Your task to perform on an android device: turn off wifi Image 0: 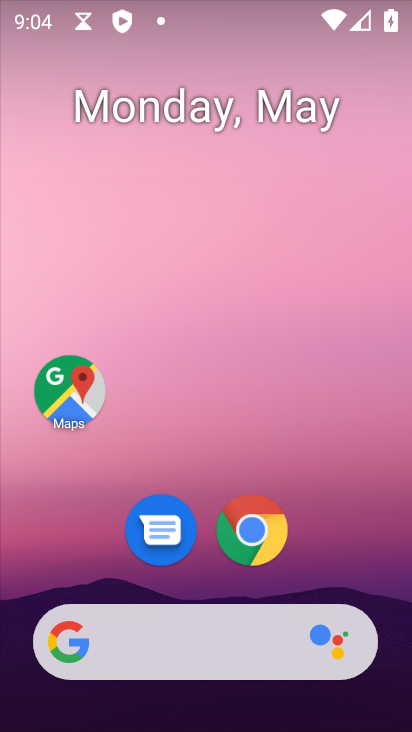
Step 0: drag from (341, 512) to (259, 5)
Your task to perform on an android device: turn off wifi Image 1: 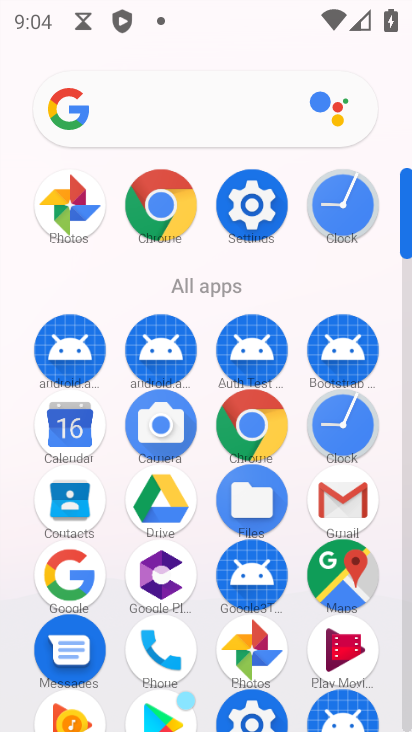
Step 1: click (253, 199)
Your task to perform on an android device: turn off wifi Image 2: 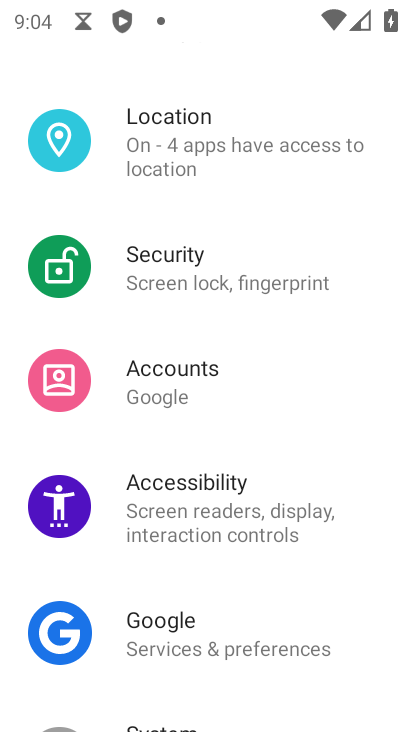
Step 2: drag from (312, 104) to (249, 654)
Your task to perform on an android device: turn off wifi Image 3: 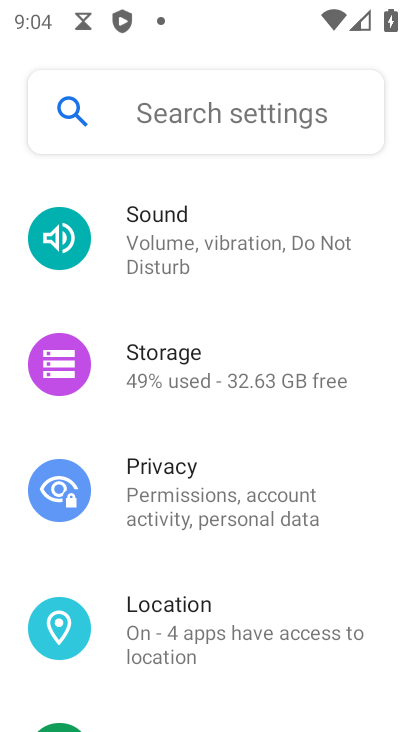
Step 3: drag from (232, 237) to (235, 519)
Your task to perform on an android device: turn off wifi Image 4: 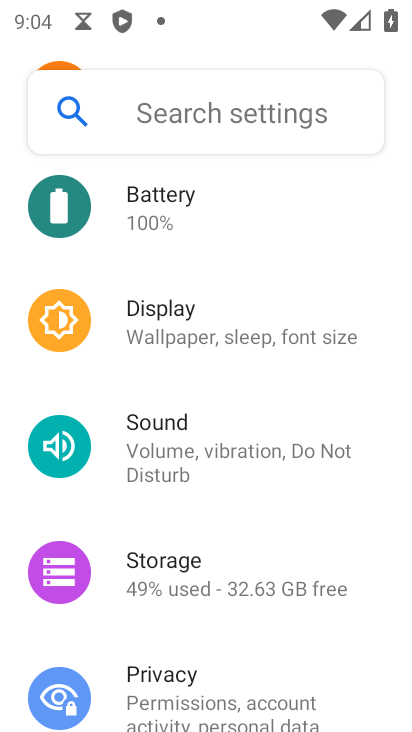
Step 4: drag from (285, 206) to (284, 583)
Your task to perform on an android device: turn off wifi Image 5: 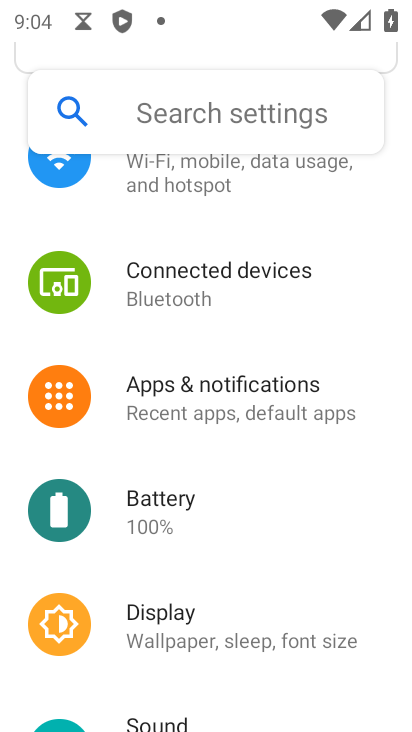
Step 5: drag from (301, 274) to (301, 572)
Your task to perform on an android device: turn off wifi Image 6: 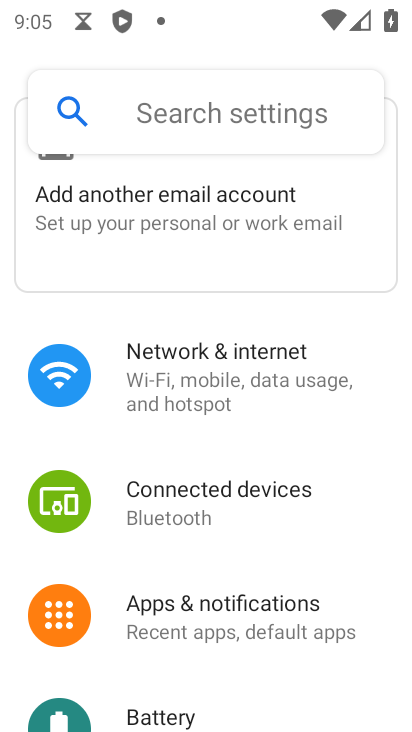
Step 6: click (229, 370)
Your task to perform on an android device: turn off wifi Image 7: 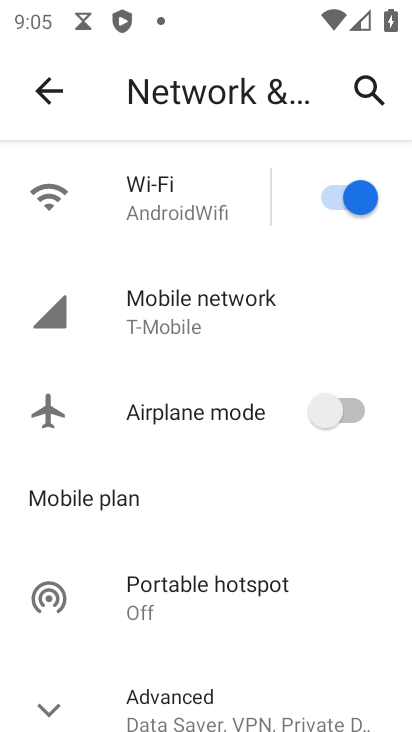
Step 7: click (333, 204)
Your task to perform on an android device: turn off wifi Image 8: 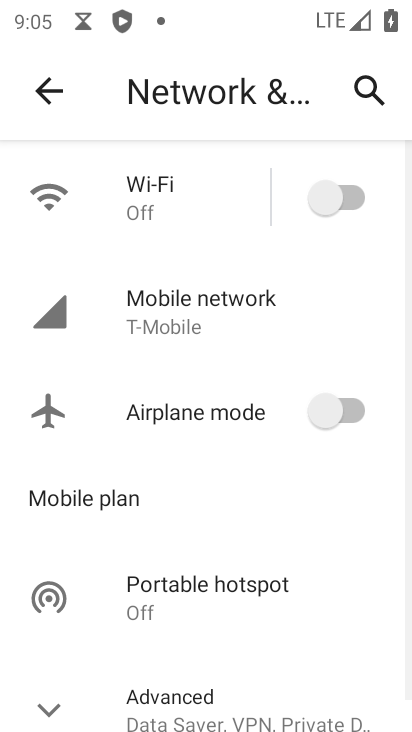
Step 8: task complete